Your task to perform on an android device: toggle data saver in the chrome app Image 0: 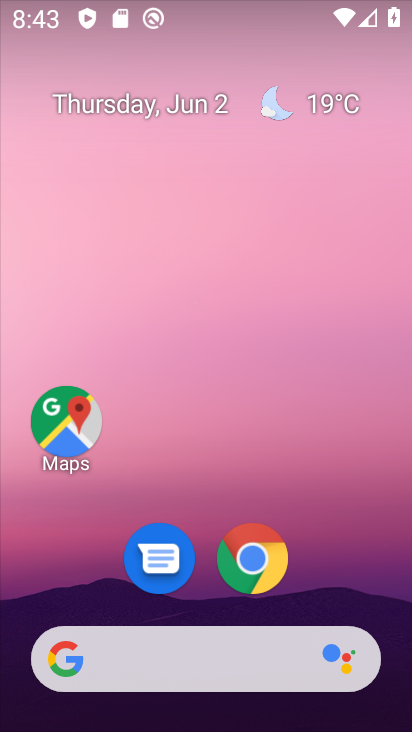
Step 0: click (253, 557)
Your task to perform on an android device: toggle data saver in the chrome app Image 1: 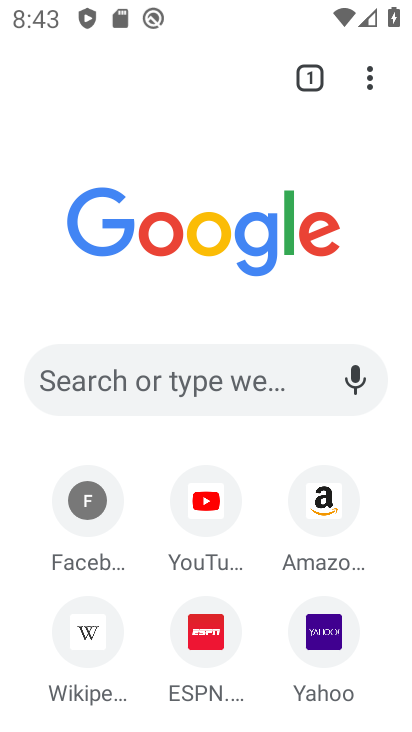
Step 1: click (370, 82)
Your task to perform on an android device: toggle data saver in the chrome app Image 2: 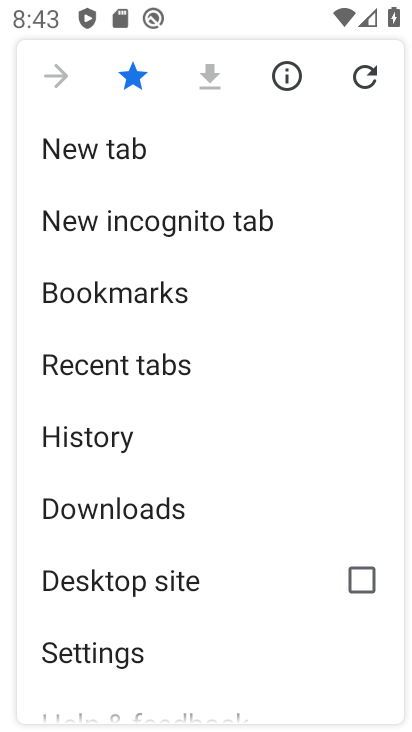
Step 2: drag from (231, 585) to (253, 128)
Your task to perform on an android device: toggle data saver in the chrome app Image 3: 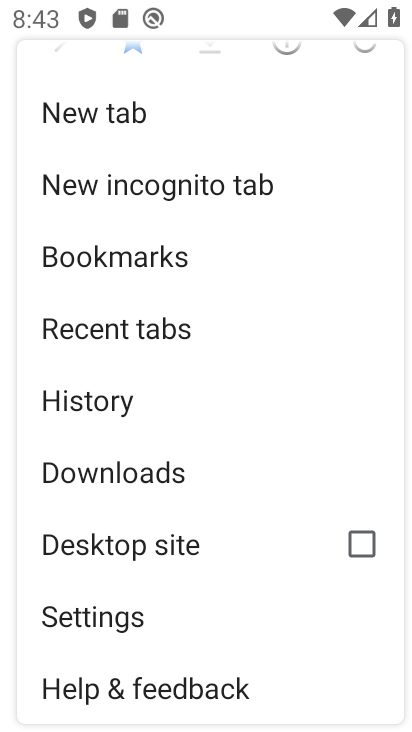
Step 3: click (82, 639)
Your task to perform on an android device: toggle data saver in the chrome app Image 4: 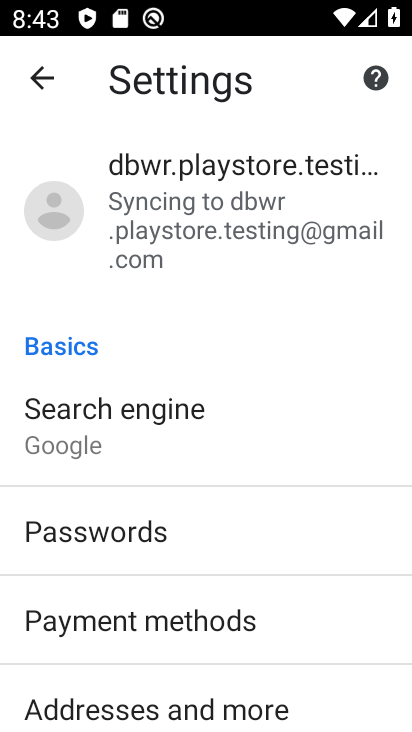
Step 4: drag from (255, 667) to (263, 96)
Your task to perform on an android device: toggle data saver in the chrome app Image 5: 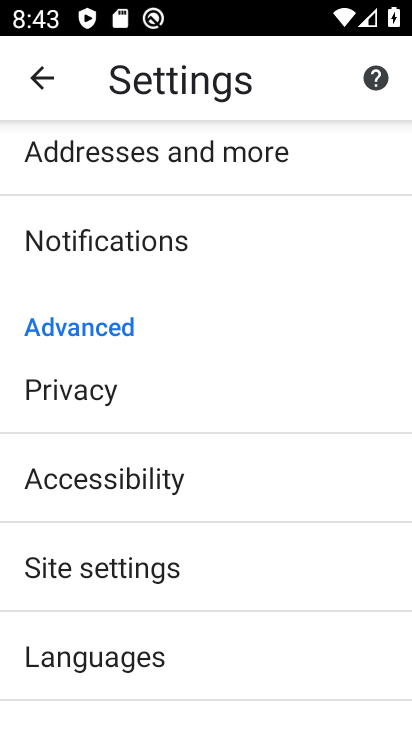
Step 5: drag from (261, 701) to (275, 236)
Your task to perform on an android device: toggle data saver in the chrome app Image 6: 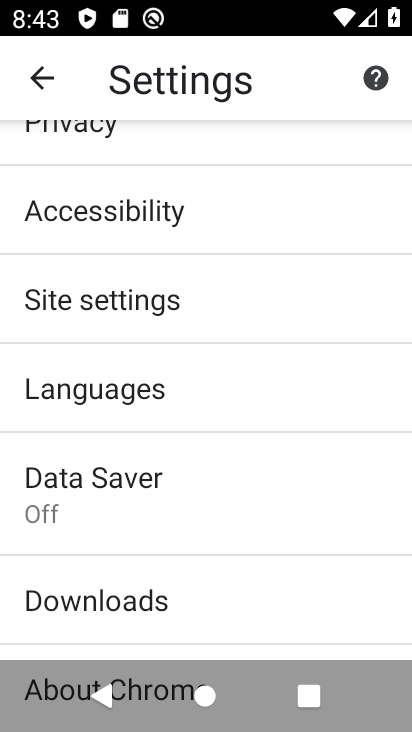
Step 6: click (81, 499)
Your task to perform on an android device: toggle data saver in the chrome app Image 7: 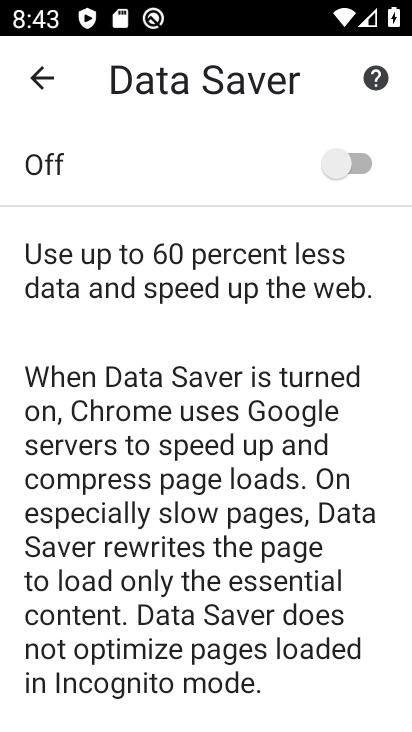
Step 7: click (360, 164)
Your task to perform on an android device: toggle data saver in the chrome app Image 8: 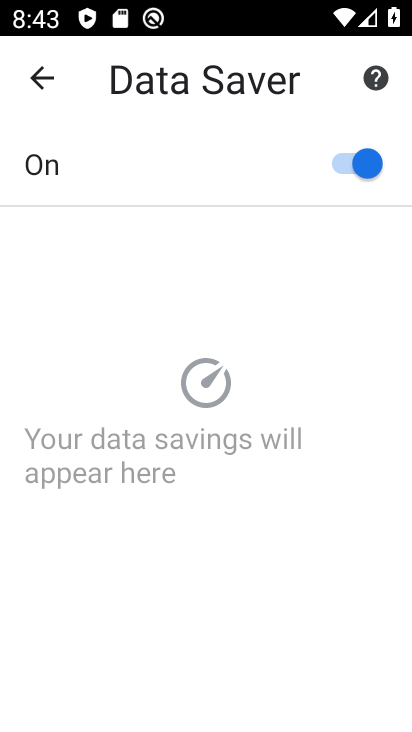
Step 8: task complete